Your task to perform on an android device: Open Google Chrome Image 0: 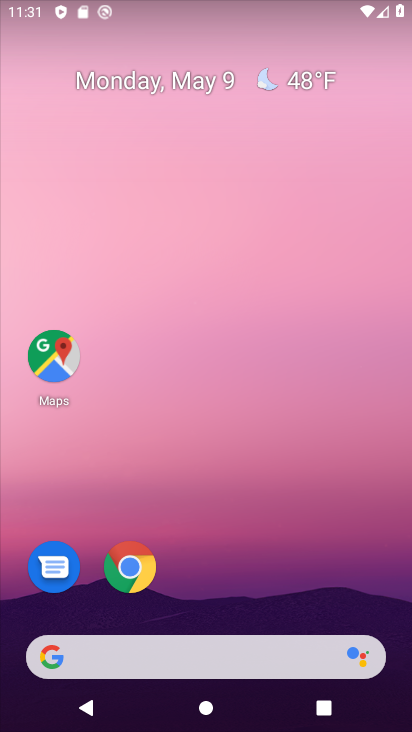
Step 0: click (125, 570)
Your task to perform on an android device: Open Google Chrome Image 1: 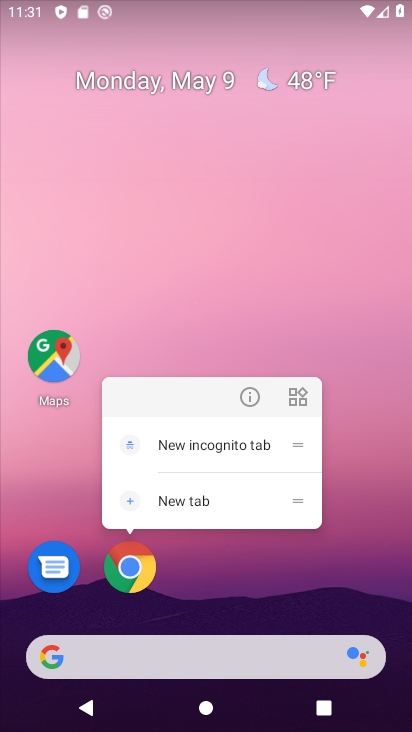
Step 1: click (134, 565)
Your task to perform on an android device: Open Google Chrome Image 2: 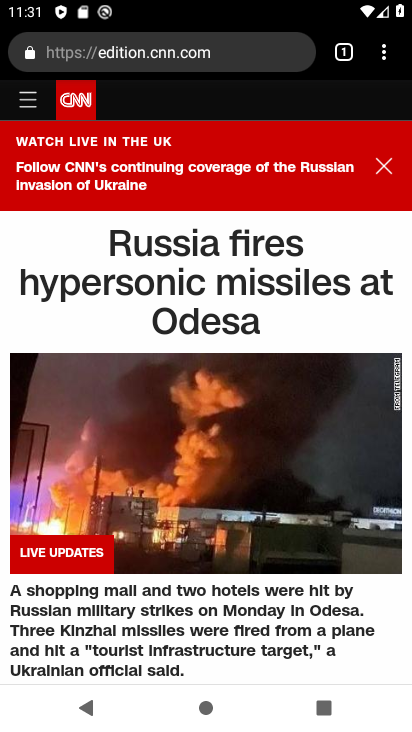
Step 2: task complete